Your task to perform on an android device: set the timer Image 0: 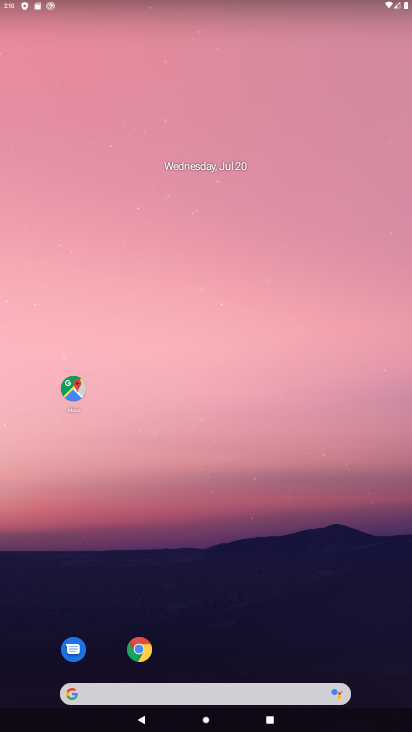
Step 0: drag from (202, 639) to (290, 14)
Your task to perform on an android device: set the timer Image 1: 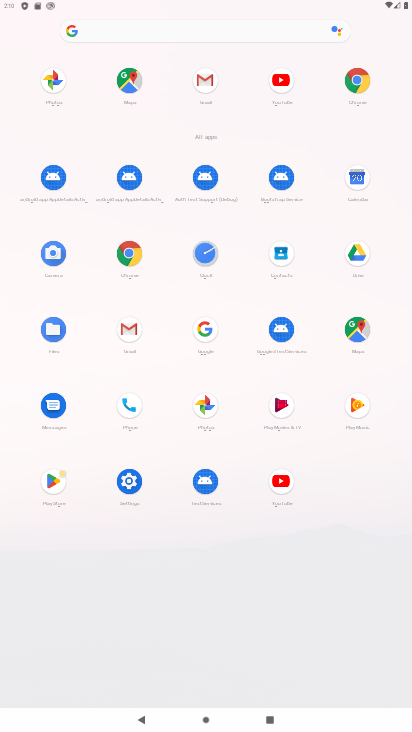
Step 1: click (208, 248)
Your task to perform on an android device: set the timer Image 2: 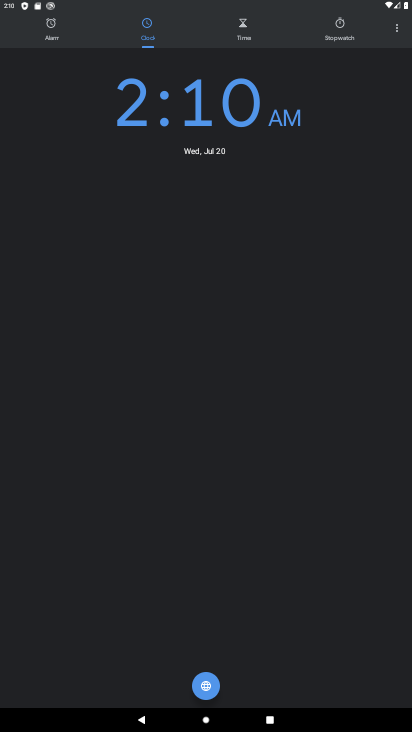
Step 2: click (244, 28)
Your task to perform on an android device: set the timer Image 3: 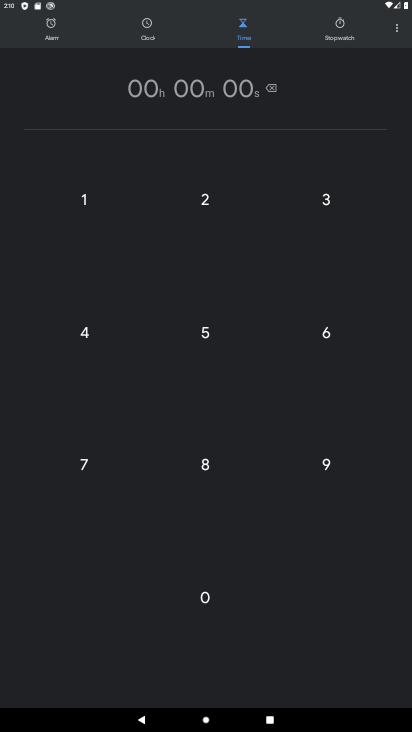
Step 3: click (81, 457)
Your task to perform on an android device: set the timer Image 4: 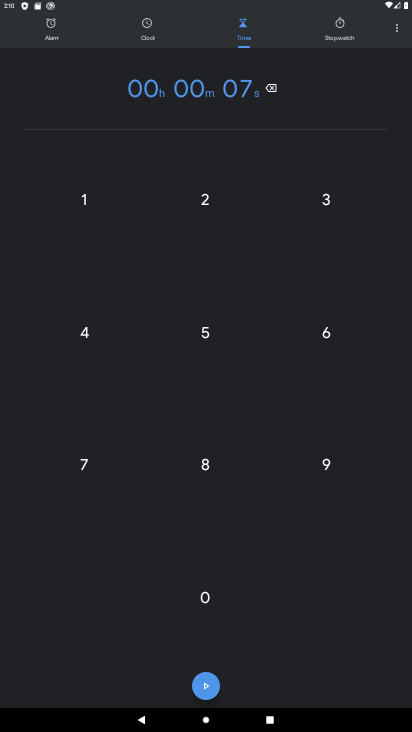
Step 4: click (90, 328)
Your task to perform on an android device: set the timer Image 5: 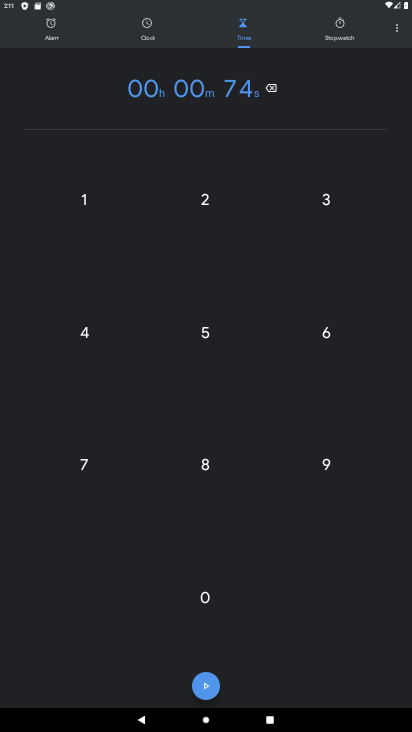
Step 5: click (210, 334)
Your task to perform on an android device: set the timer Image 6: 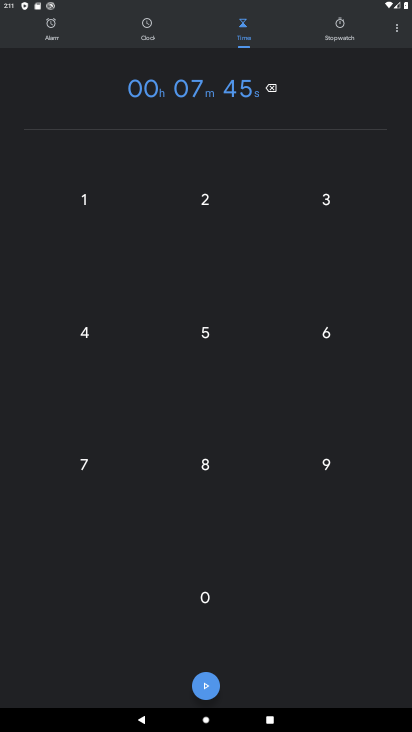
Step 6: click (210, 686)
Your task to perform on an android device: set the timer Image 7: 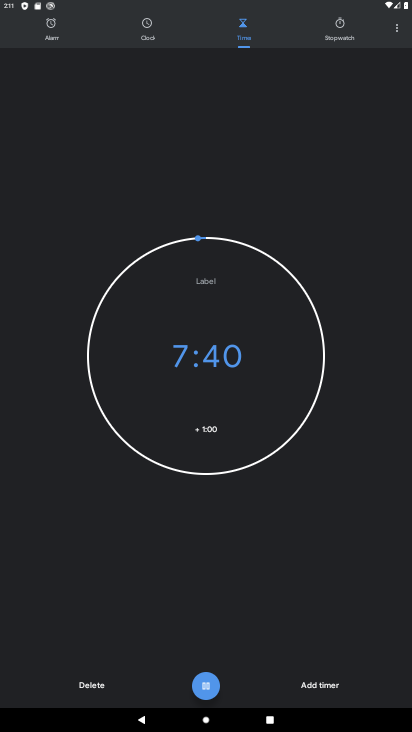
Step 7: task complete